Your task to perform on an android device: find which apps use the phone's location Image 0: 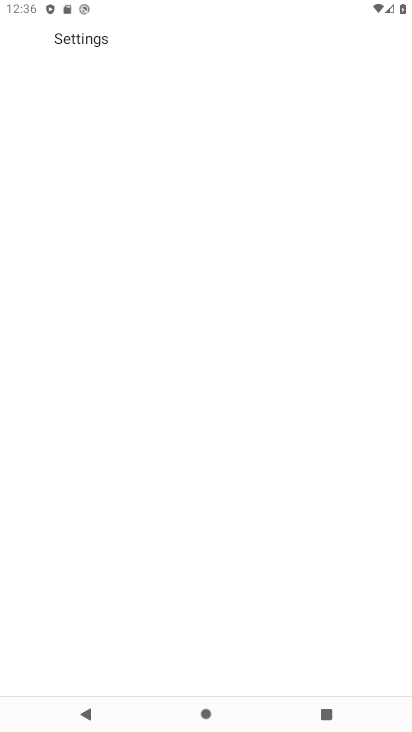
Step 0: drag from (181, 645) to (166, 415)
Your task to perform on an android device: find which apps use the phone's location Image 1: 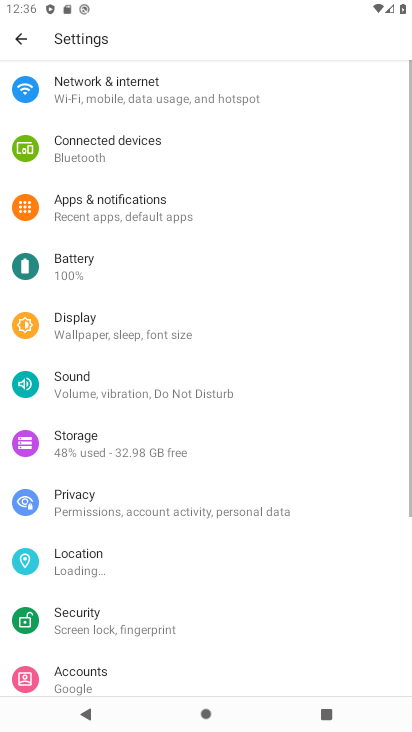
Step 1: press home button
Your task to perform on an android device: find which apps use the phone's location Image 2: 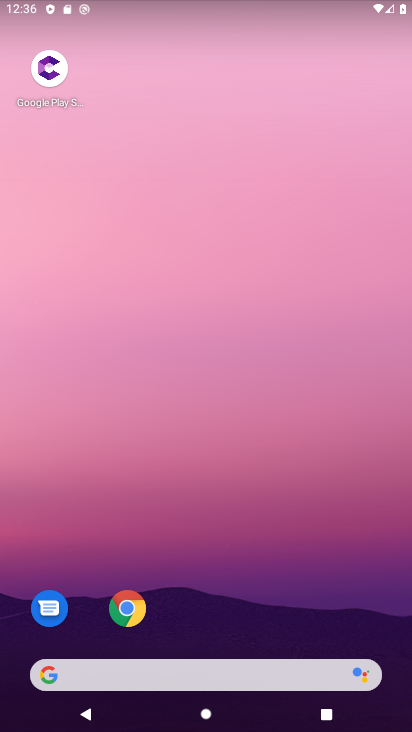
Step 2: drag from (216, 640) to (113, 65)
Your task to perform on an android device: find which apps use the phone's location Image 3: 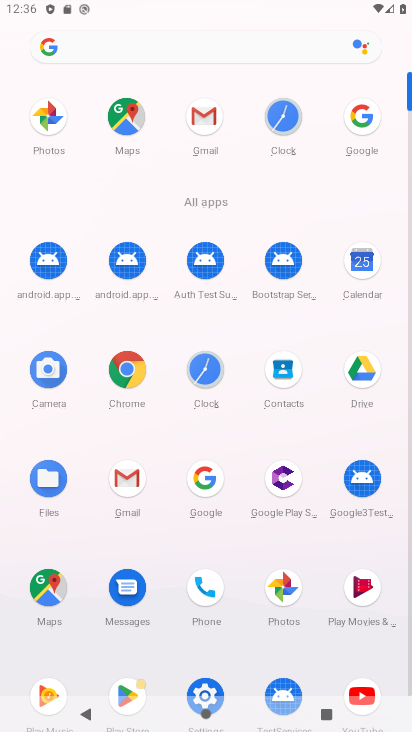
Step 3: click (204, 691)
Your task to perform on an android device: find which apps use the phone's location Image 4: 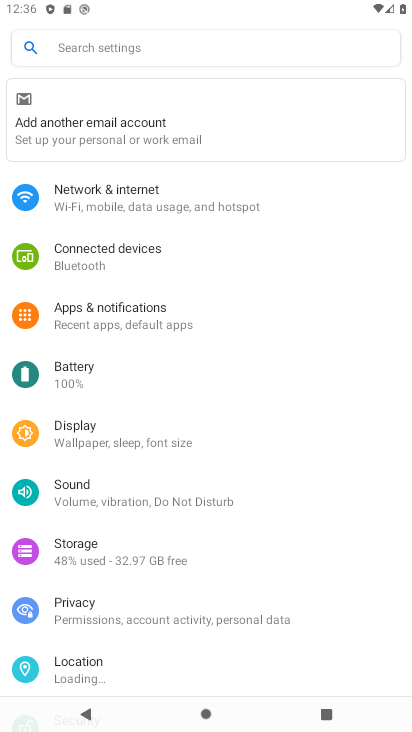
Step 4: click (129, 646)
Your task to perform on an android device: find which apps use the phone's location Image 5: 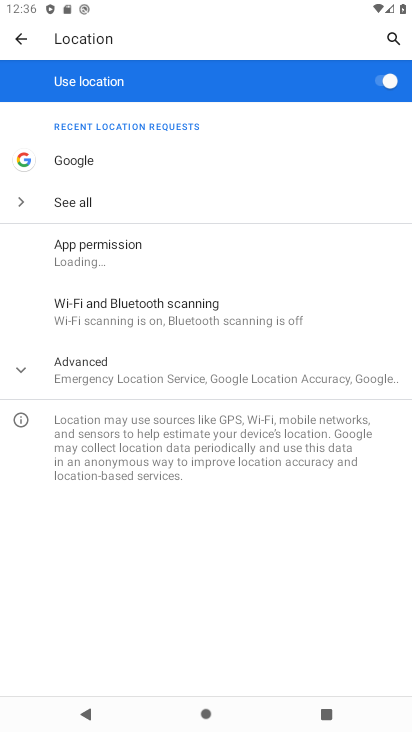
Step 5: click (147, 394)
Your task to perform on an android device: find which apps use the phone's location Image 6: 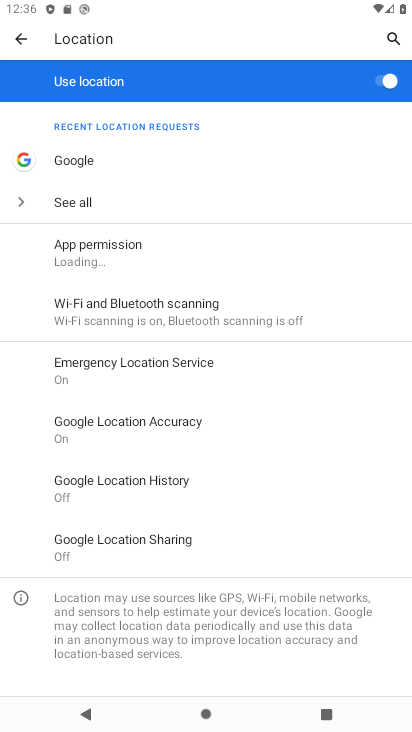
Step 6: click (90, 258)
Your task to perform on an android device: find which apps use the phone's location Image 7: 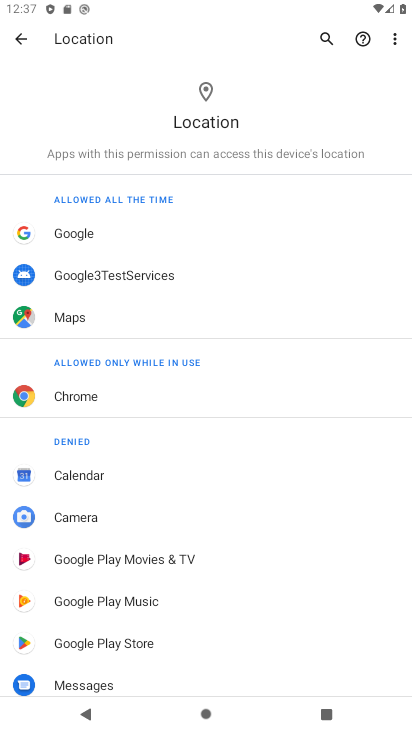
Step 7: task complete